Your task to perform on an android device: turn on bluetooth scan Image 0: 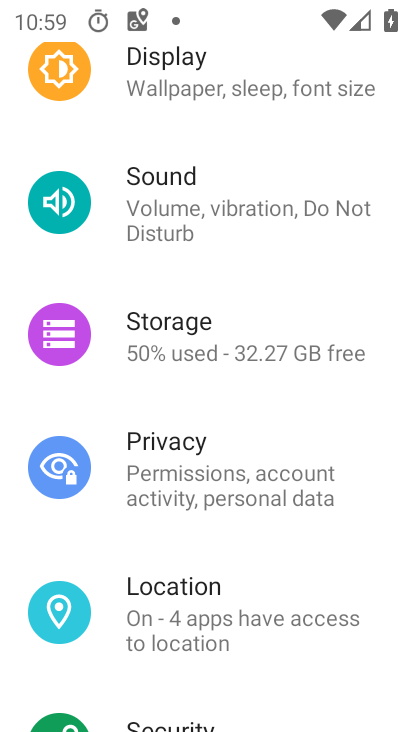
Step 0: click (196, 606)
Your task to perform on an android device: turn on bluetooth scan Image 1: 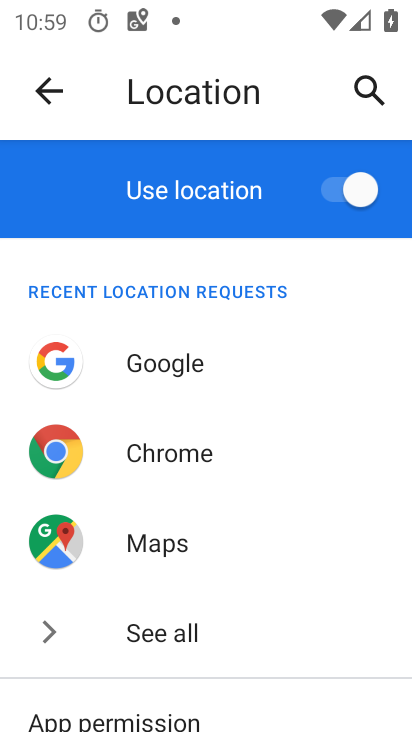
Step 1: drag from (286, 700) to (283, 348)
Your task to perform on an android device: turn on bluetooth scan Image 2: 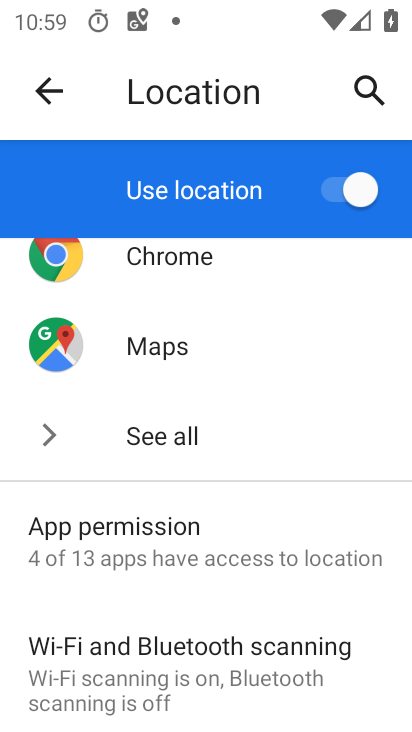
Step 2: click (128, 635)
Your task to perform on an android device: turn on bluetooth scan Image 3: 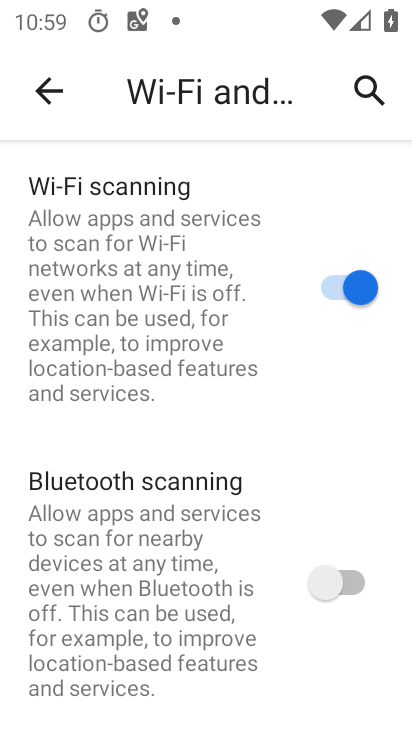
Step 3: click (353, 580)
Your task to perform on an android device: turn on bluetooth scan Image 4: 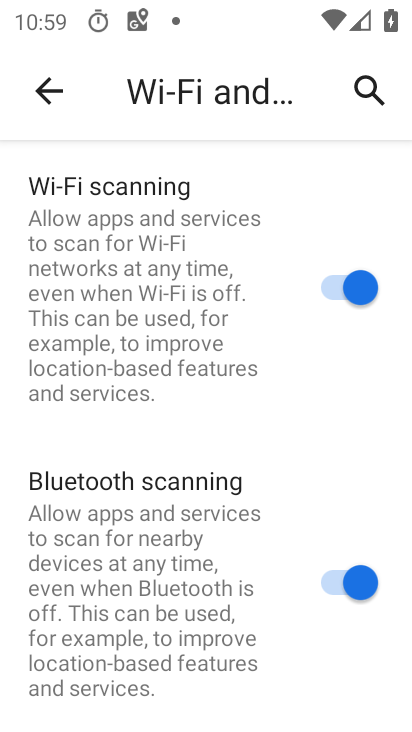
Step 4: task complete